Your task to perform on an android device: Open ESPN.com Image 0: 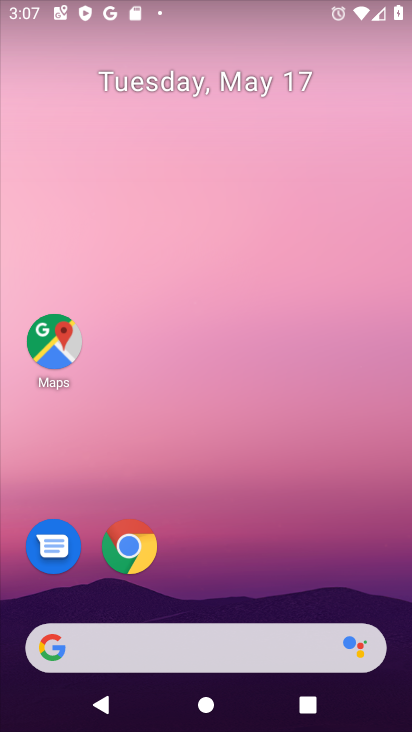
Step 0: click (132, 537)
Your task to perform on an android device: Open ESPN.com Image 1: 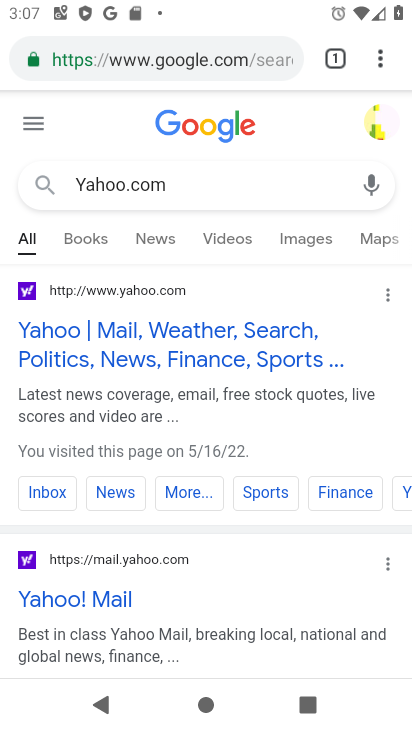
Step 1: click (106, 190)
Your task to perform on an android device: Open ESPN.com Image 2: 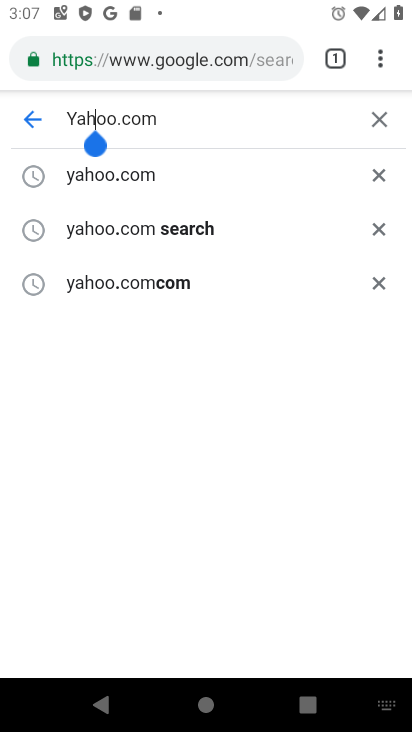
Step 2: click (160, 115)
Your task to perform on an android device: Open ESPN.com Image 3: 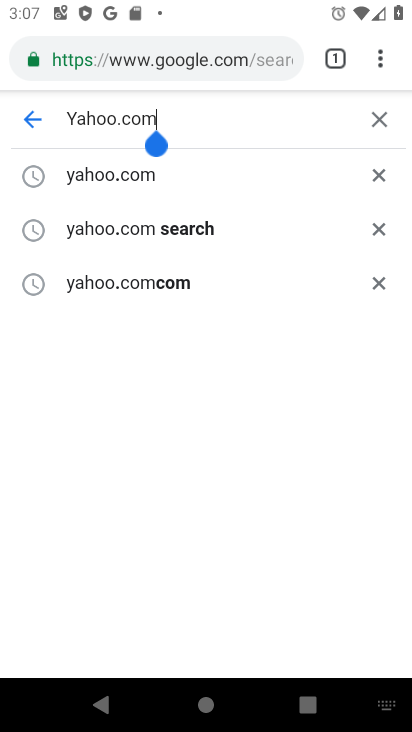
Step 3: click (373, 119)
Your task to perform on an android device: Open ESPN.com Image 4: 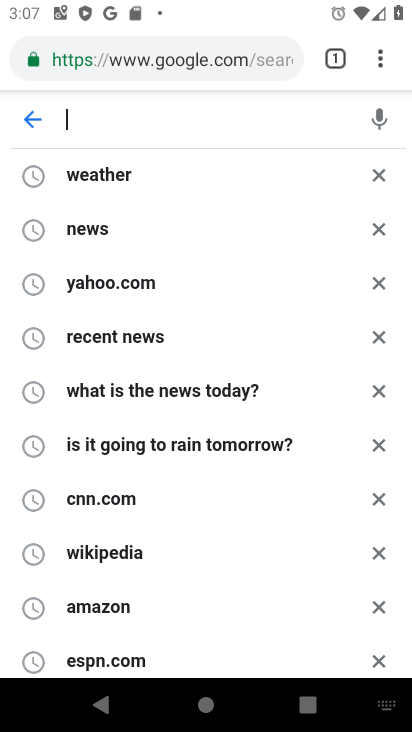
Step 4: type "ESPN.com"
Your task to perform on an android device: Open ESPN.com Image 5: 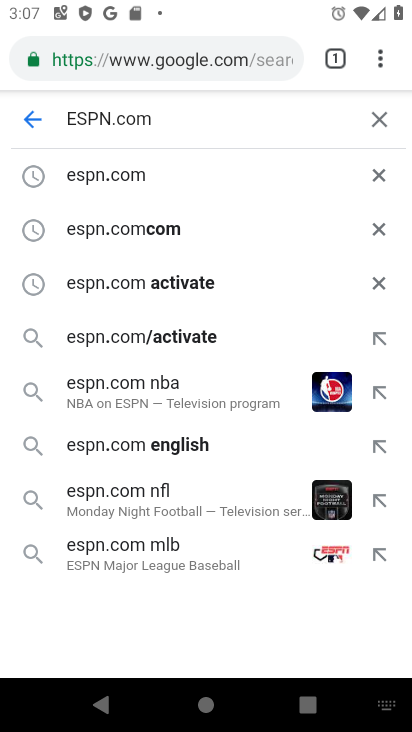
Step 5: click (120, 124)
Your task to perform on an android device: Open ESPN.com Image 6: 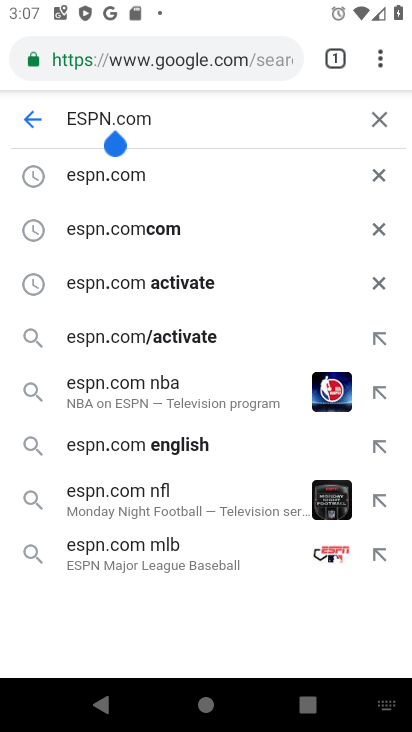
Step 6: click (92, 118)
Your task to perform on an android device: Open ESPN.com Image 7: 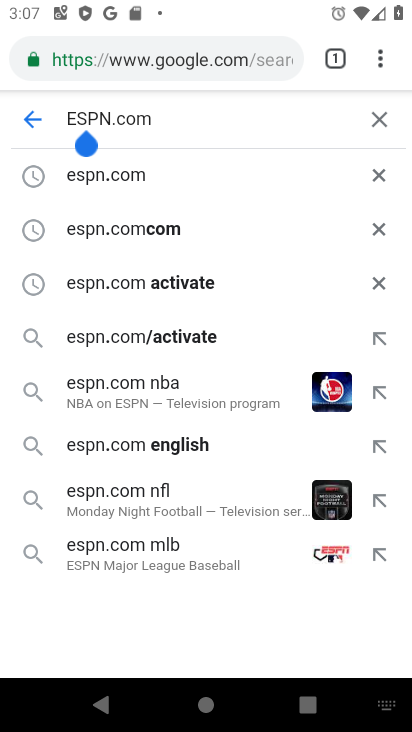
Step 7: click (95, 171)
Your task to perform on an android device: Open ESPN.com Image 8: 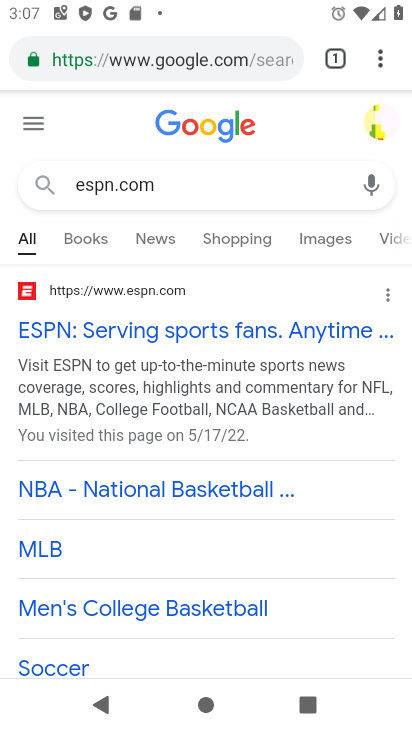
Step 8: task complete